Your task to perform on an android device: turn on data saver in the chrome app Image 0: 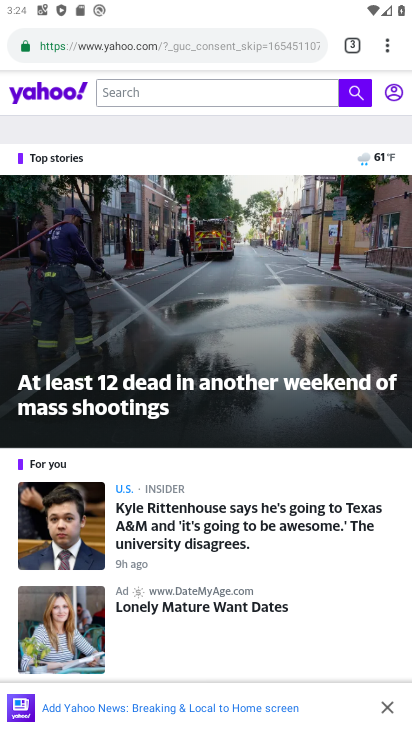
Step 0: press back button
Your task to perform on an android device: turn on data saver in the chrome app Image 1: 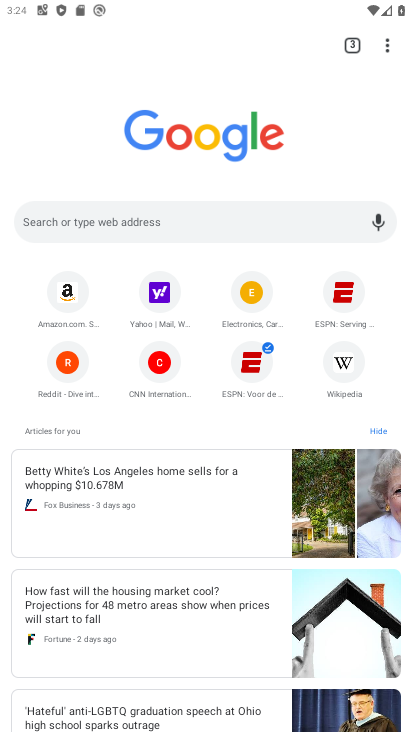
Step 1: press back button
Your task to perform on an android device: turn on data saver in the chrome app Image 2: 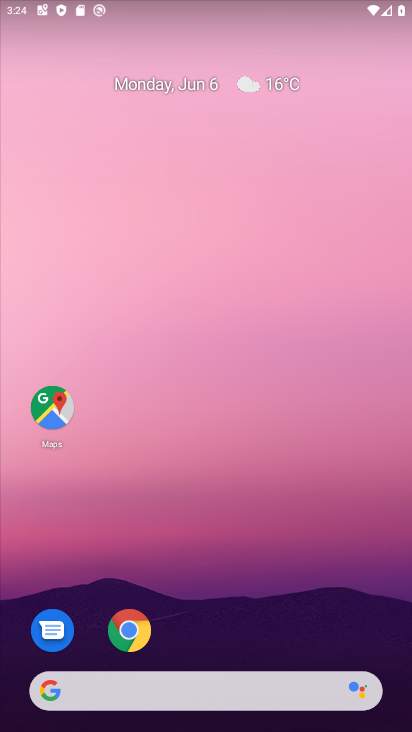
Step 2: click (128, 607)
Your task to perform on an android device: turn on data saver in the chrome app Image 3: 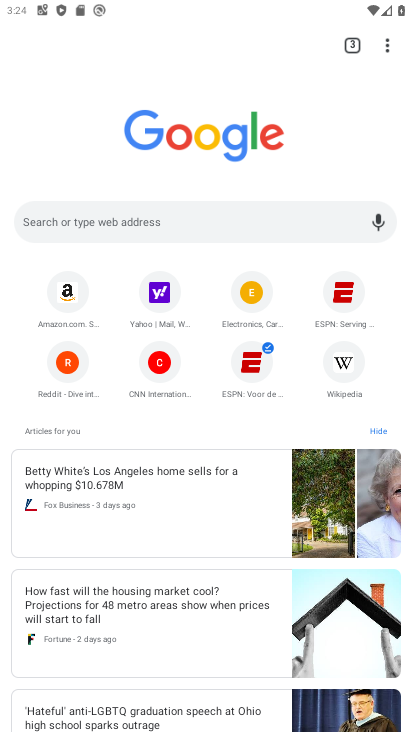
Step 3: drag from (382, 40) to (243, 384)
Your task to perform on an android device: turn on data saver in the chrome app Image 4: 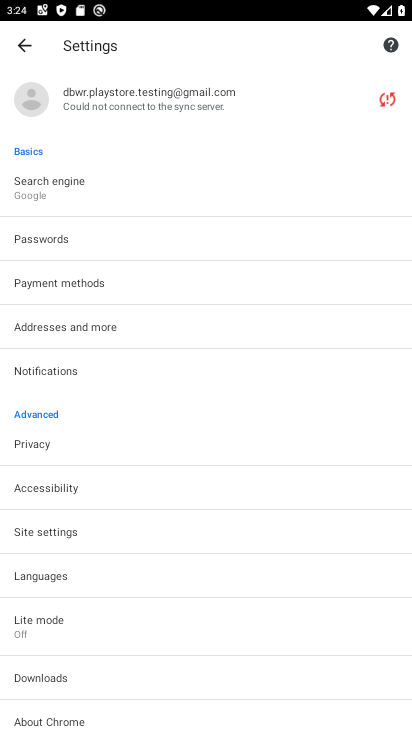
Step 4: click (56, 614)
Your task to perform on an android device: turn on data saver in the chrome app Image 5: 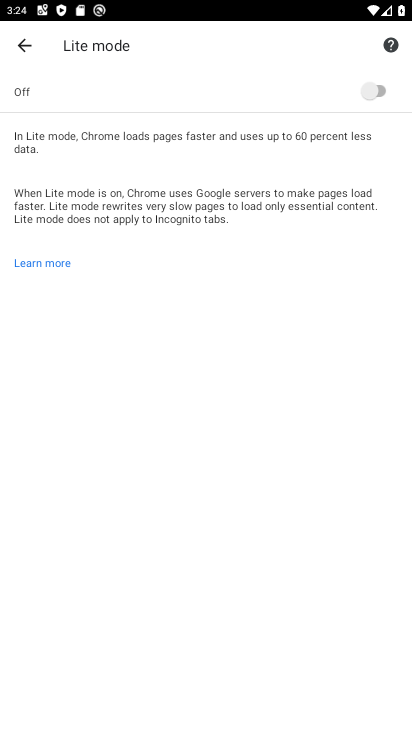
Step 5: click (368, 97)
Your task to perform on an android device: turn on data saver in the chrome app Image 6: 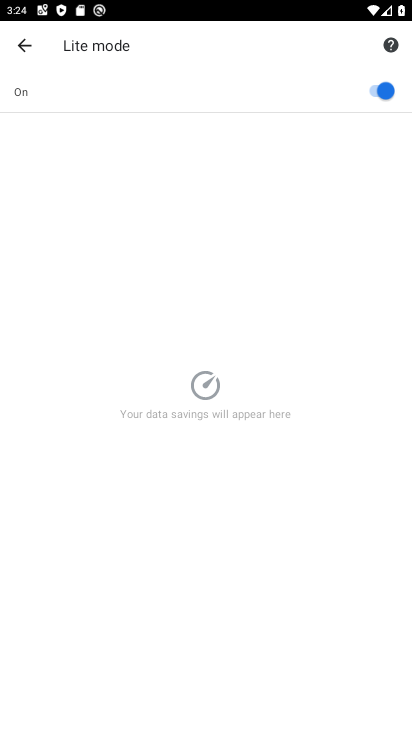
Step 6: task complete